Your task to perform on an android device: toggle sleep mode Image 0: 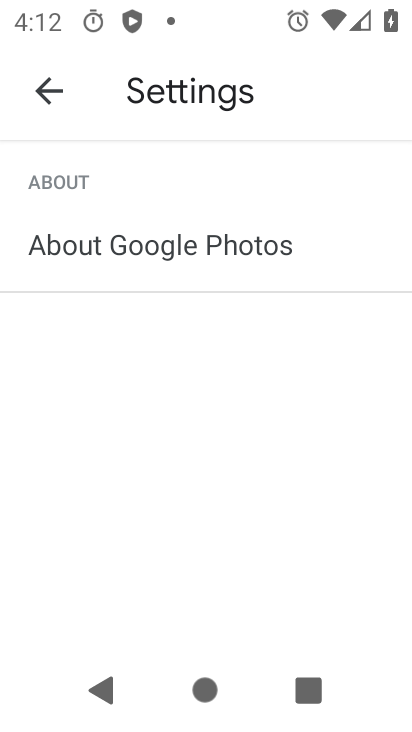
Step 0: press home button
Your task to perform on an android device: toggle sleep mode Image 1: 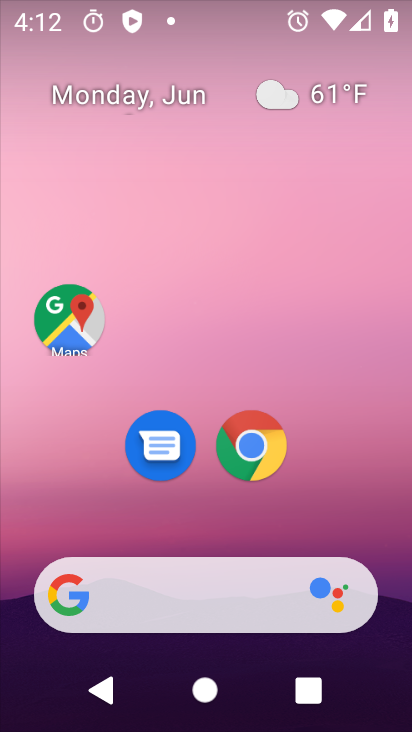
Step 1: drag from (183, 539) to (225, 156)
Your task to perform on an android device: toggle sleep mode Image 2: 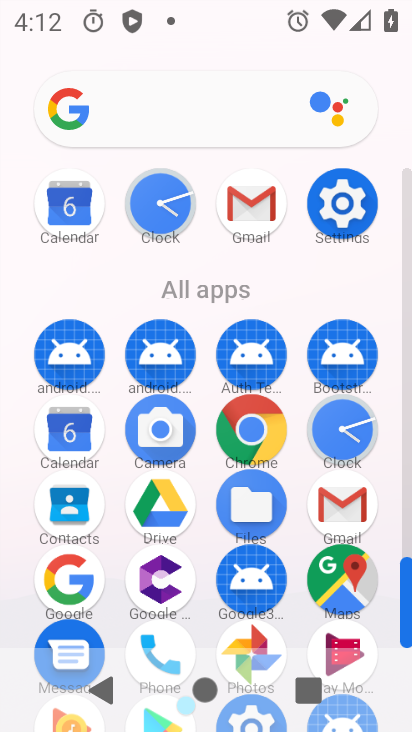
Step 2: click (338, 208)
Your task to perform on an android device: toggle sleep mode Image 3: 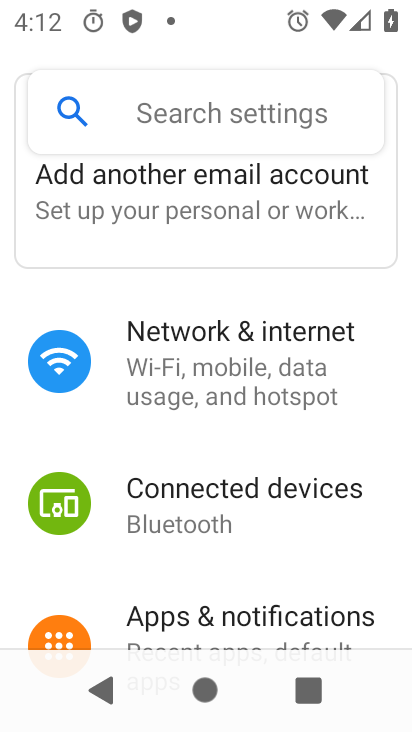
Step 3: task complete